Your task to perform on an android device: toggle pop-ups in chrome Image 0: 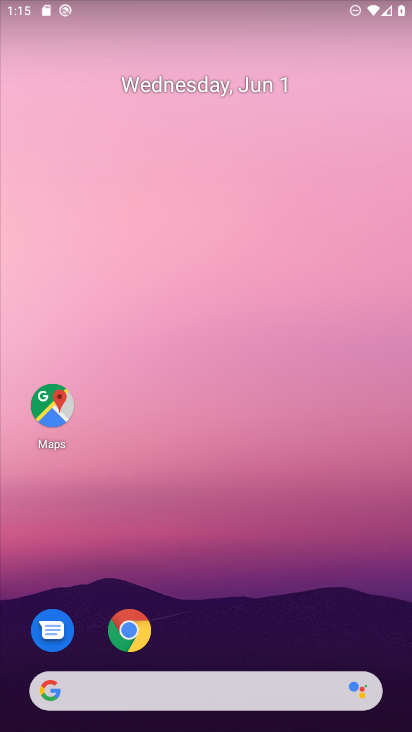
Step 0: press home button
Your task to perform on an android device: toggle pop-ups in chrome Image 1: 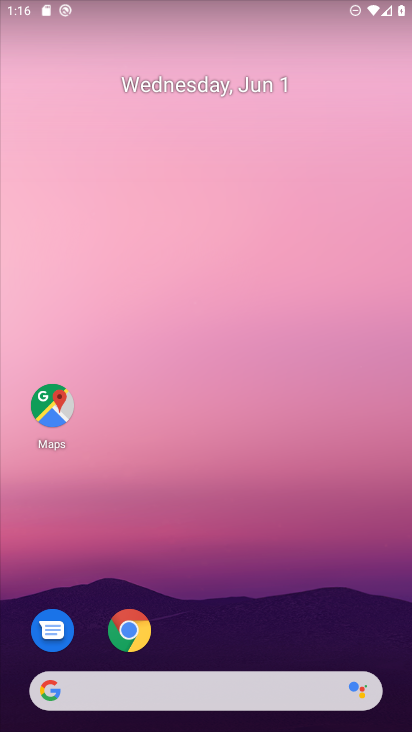
Step 1: click (128, 645)
Your task to perform on an android device: toggle pop-ups in chrome Image 2: 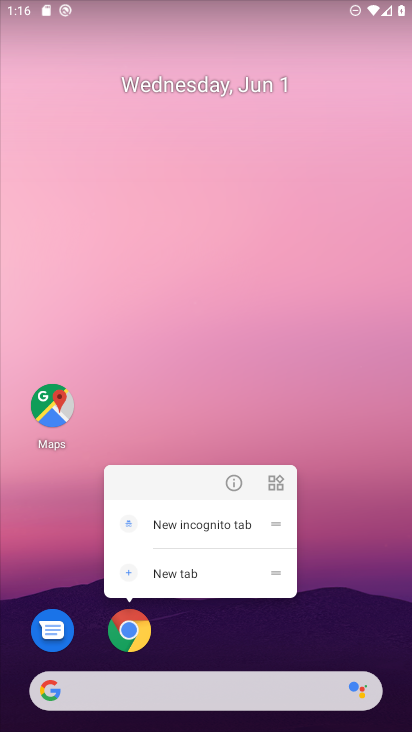
Step 2: click (121, 648)
Your task to perform on an android device: toggle pop-ups in chrome Image 3: 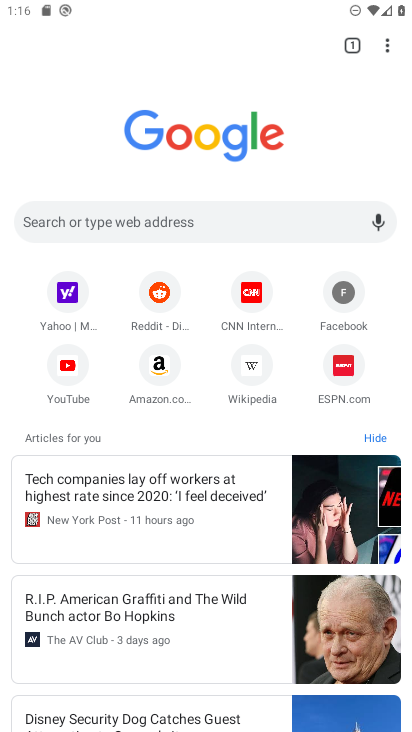
Step 3: drag from (385, 43) to (252, 385)
Your task to perform on an android device: toggle pop-ups in chrome Image 4: 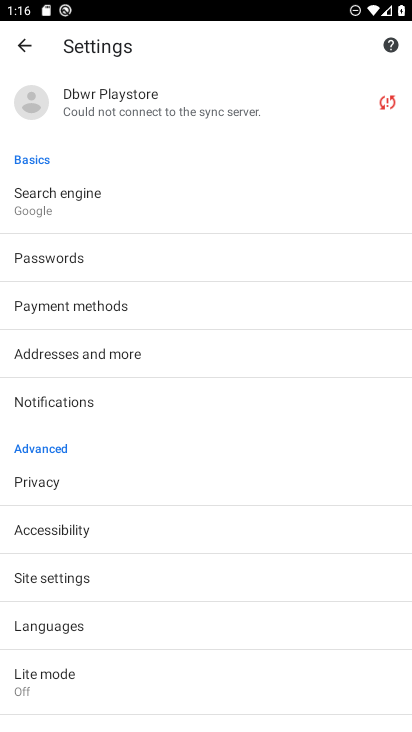
Step 4: click (52, 580)
Your task to perform on an android device: toggle pop-ups in chrome Image 5: 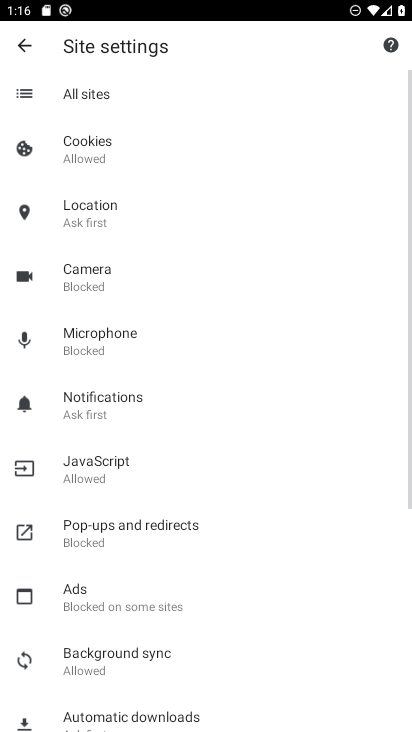
Step 5: click (128, 528)
Your task to perform on an android device: toggle pop-ups in chrome Image 6: 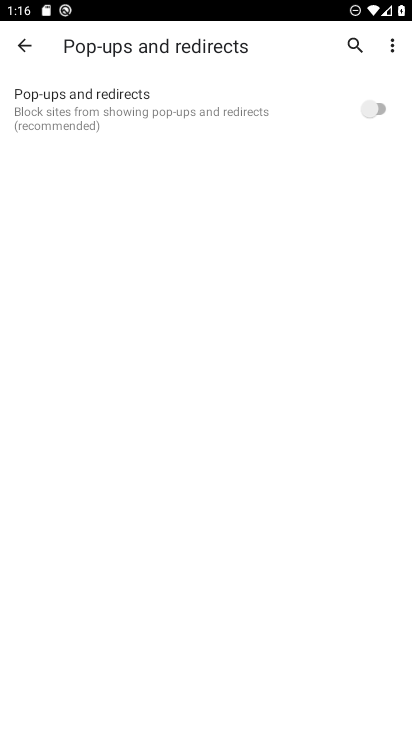
Step 6: click (375, 107)
Your task to perform on an android device: toggle pop-ups in chrome Image 7: 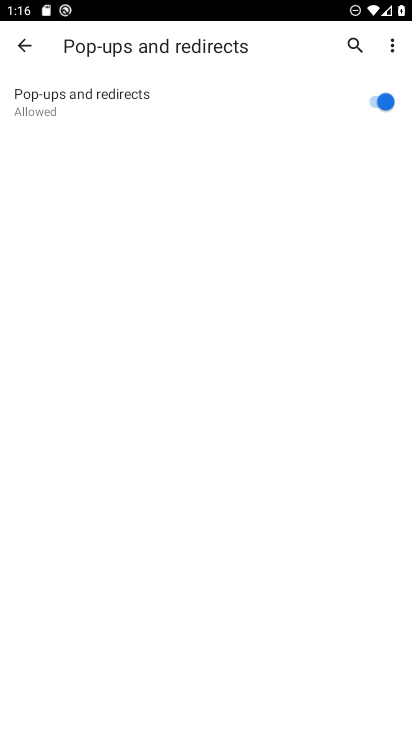
Step 7: task complete